Your task to perform on an android device: turn off wifi Image 0: 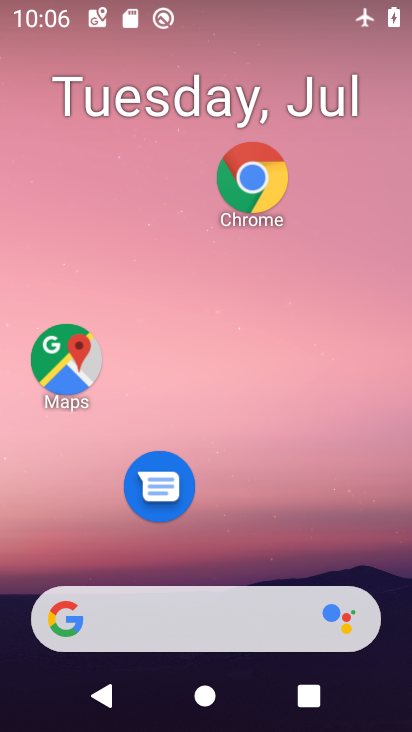
Step 0: drag from (285, 629) to (249, 204)
Your task to perform on an android device: turn off wifi Image 1: 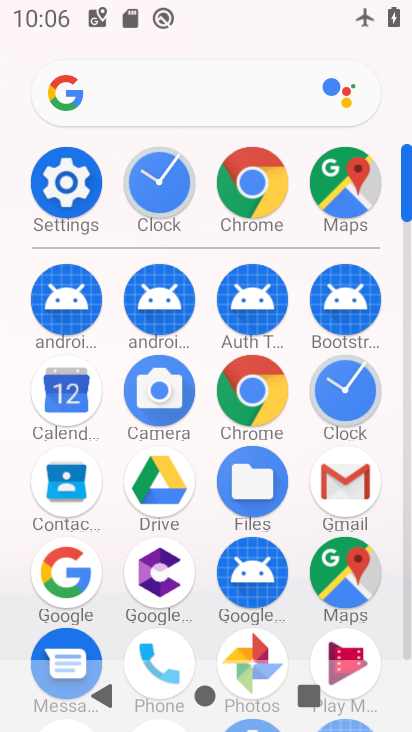
Step 1: click (86, 194)
Your task to perform on an android device: turn off wifi Image 2: 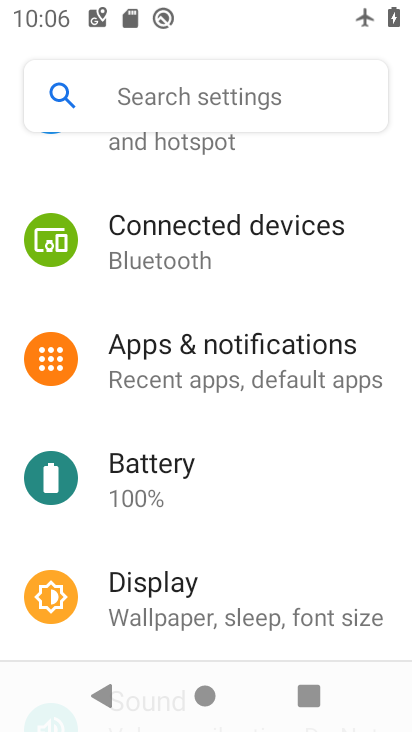
Step 2: drag from (215, 287) to (212, 635)
Your task to perform on an android device: turn off wifi Image 3: 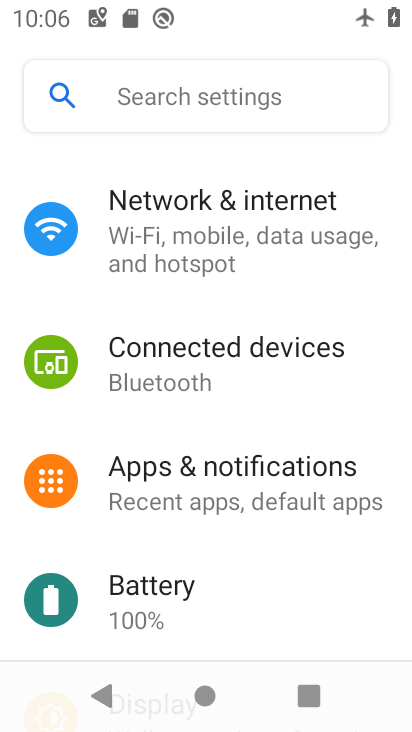
Step 3: click (262, 231)
Your task to perform on an android device: turn off wifi Image 4: 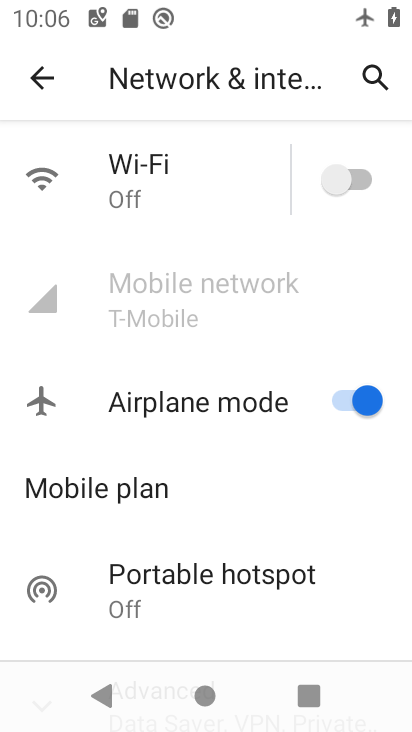
Step 4: task complete